Your task to perform on an android device: open a new tab in the chrome app Image 0: 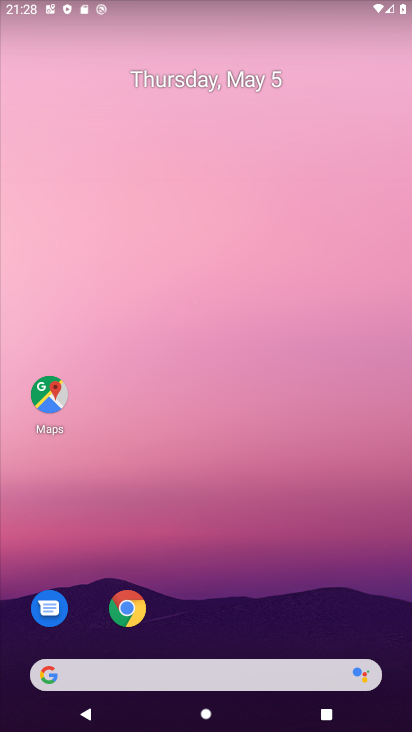
Step 0: drag from (233, 656) to (308, 39)
Your task to perform on an android device: open a new tab in the chrome app Image 1: 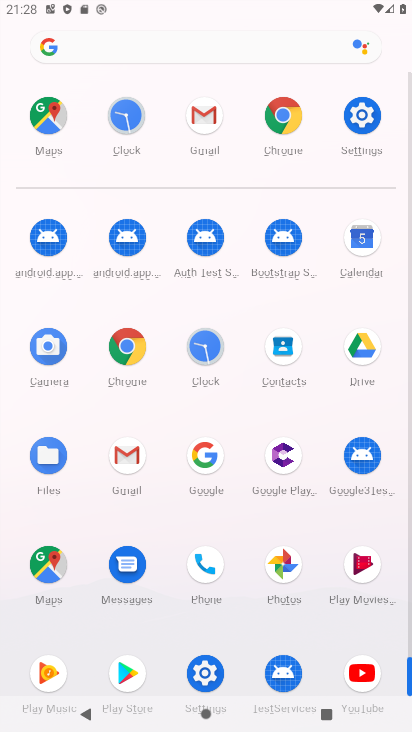
Step 1: click (116, 350)
Your task to perform on an android device: open a new tab in the chrome app Image 2: 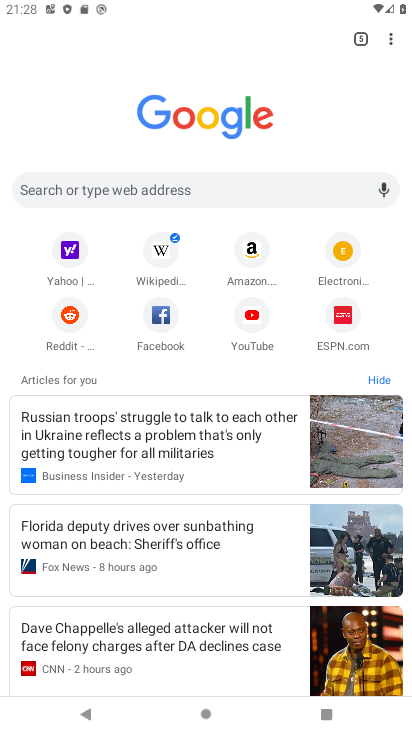
Step 2: click (393, 32)
Your task to perform on an android device: open a new tab in the chrome app Image 3: 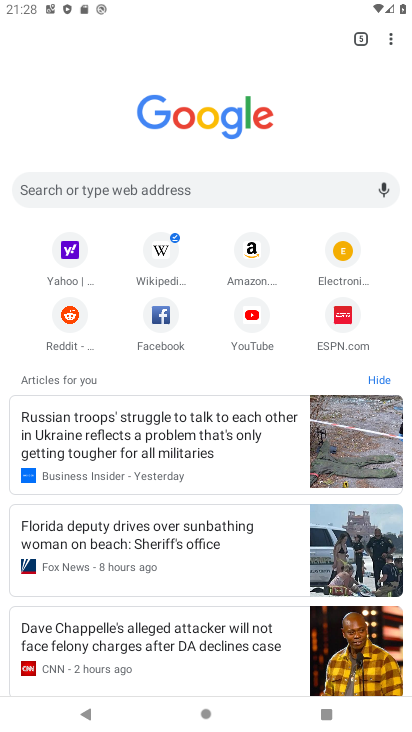
Step 3: click (386, 36)
Your task to perform on an android device: open a new tab in the chrome app Image 4: 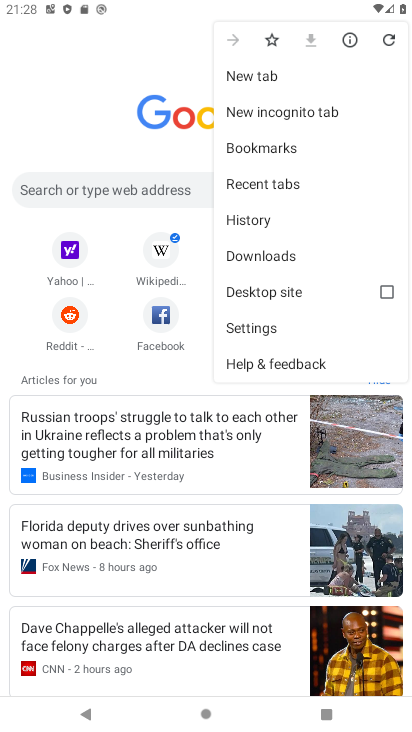
Step 4: click (307, 75)
Your task to perform on an android device: open a new tab in the chrome app Image 5: 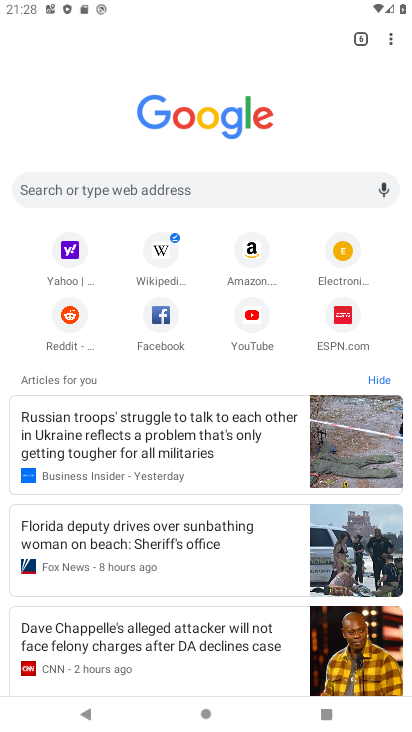
Step 5: task complete